Your task to perform on an android device: turn on airplane mode Image 0: 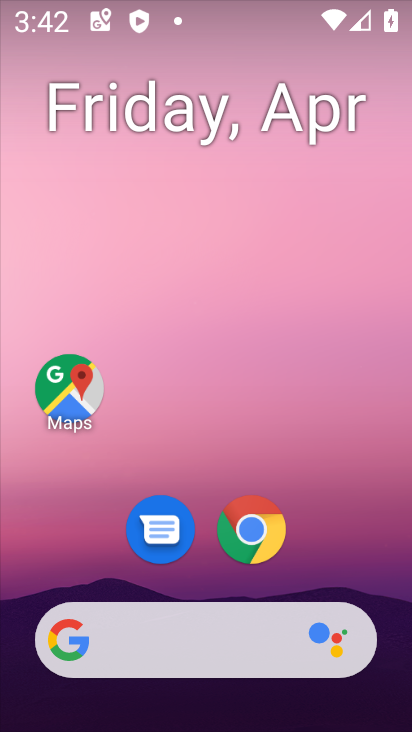
Step 0: drag from (356, 559) to (375, 171)
Your task to perform on an android device: turn on airplane mode Image 1: 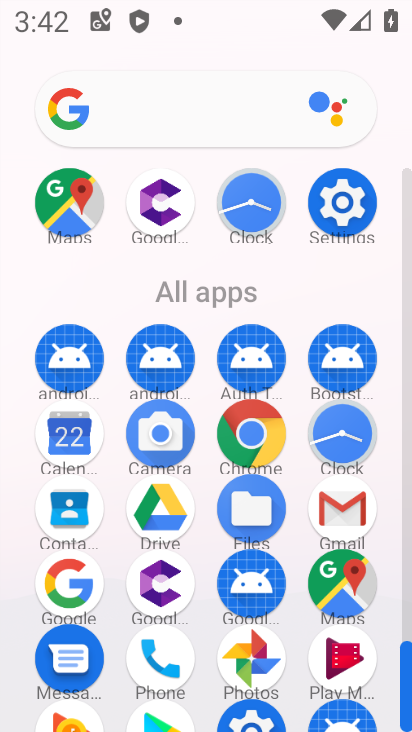
Step 1: click (344, 219)
Your task to perform on an android device: turn on airplane mode Image 2: 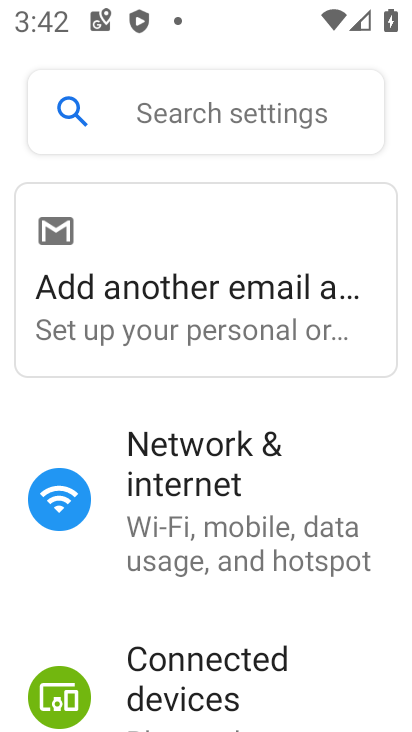
Step 2: click (279, 519)
Your task to perform on an android device: turn on airplane mode Image 3: 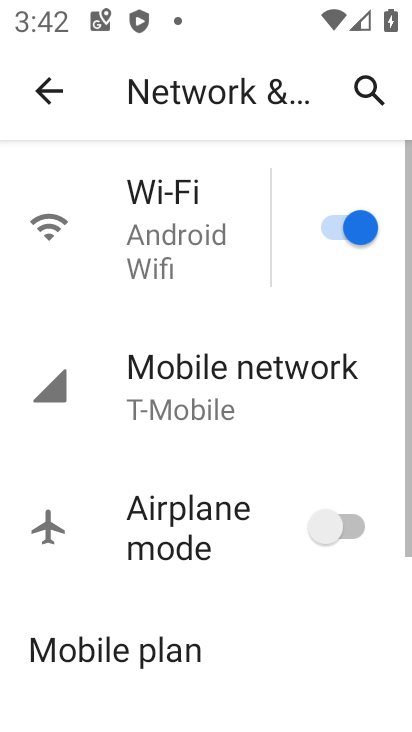
Step 3: click (332, 516)
Your task to perform on an android device: turn on airplane mode Image 4: 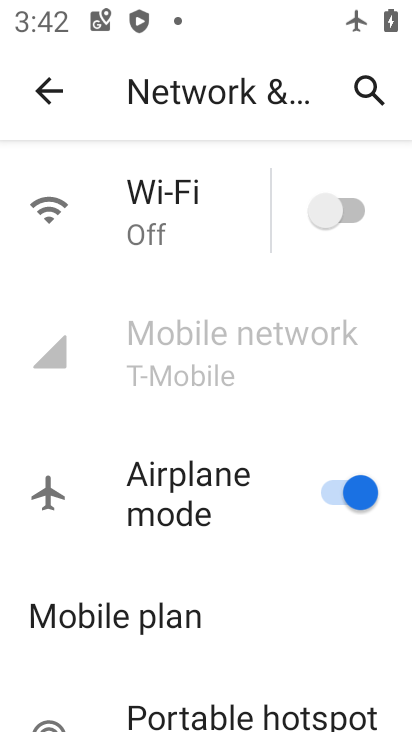
Step 4: task complete